Your task to perform on an android device: change timer sound Image 0: 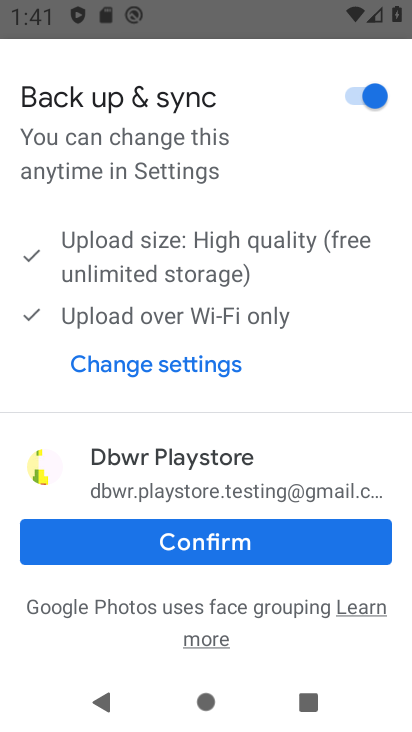
Step 0: press home button
Your task to perform on an android device: change timer sound Image 1: 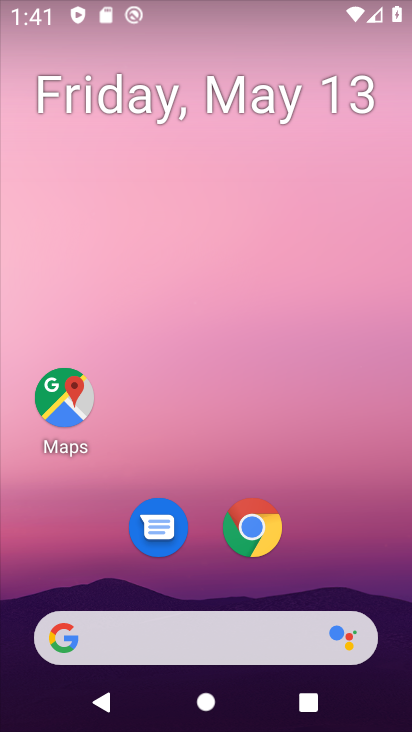
Step 1: drag from (205, 586) to (219, 33)
Your task to perform on an android device: change timer sound Image 2: 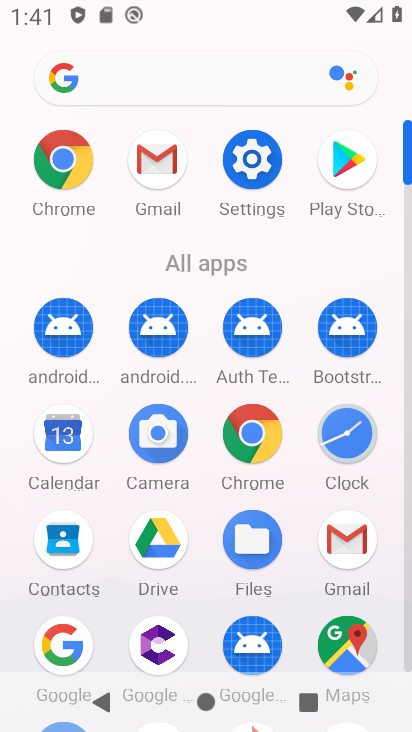
Step 2: click (362, 452)
Your task to perform on an android device: change timer sound Image 3: 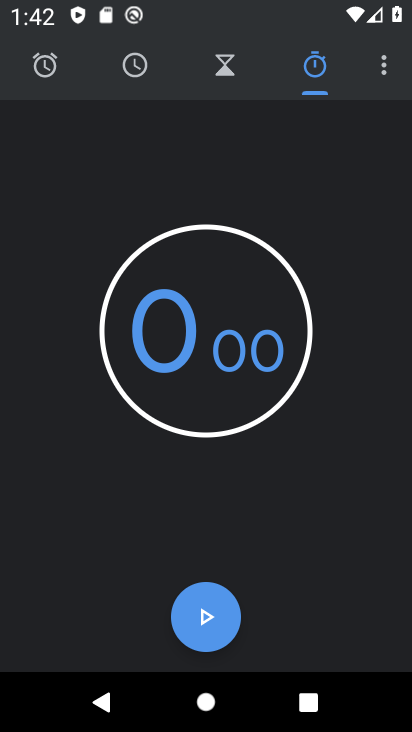
Step 3: click (400, 56)
Your task to perform on an android device: change timer sound Image 4: 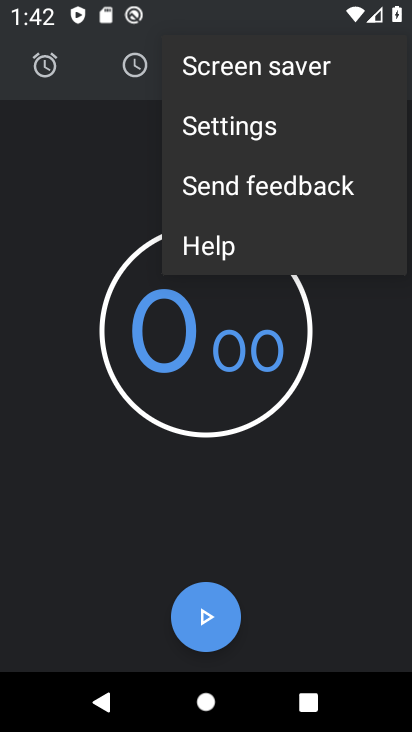
Step 4: click (241, 126)
Your task to perform on an android device: change timer sound Image 5: 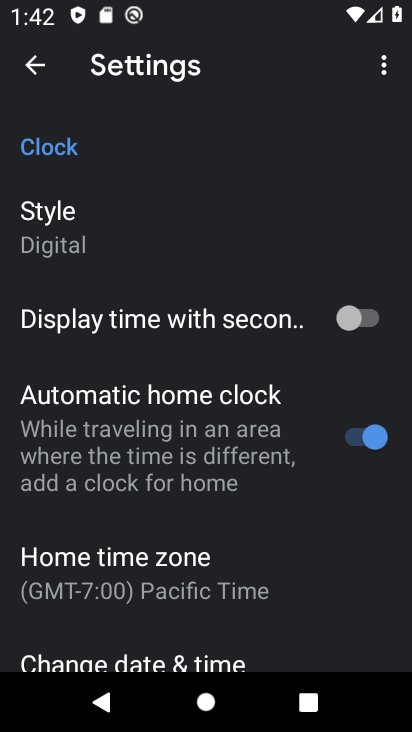
Step 5: drag from (145, 544) to (280, 0)
Your task to perform on an android device: change timer sound Image 6: 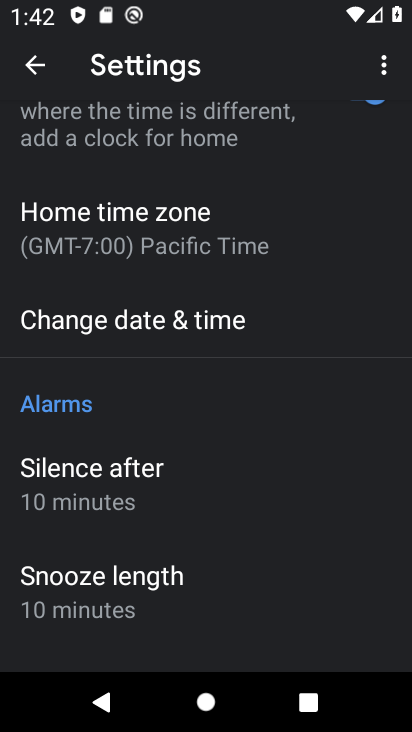
Step 6: drag from (136, 621) to (366, 20)
Your task to perform on an android device: change timer sound Image 7: 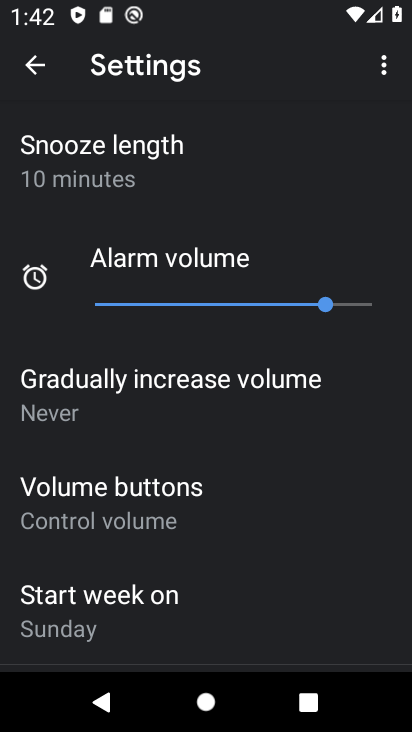
Step 7: drag from (113, 611) to (176, 158)
Your task to perform on an android device: change timer sound Image 8: 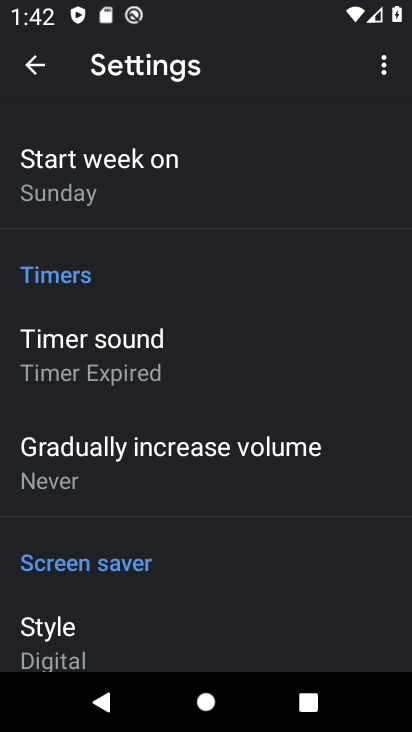
Step 8: click (139, 348)
Your task to perform on an android device: change timer sound Image 9: 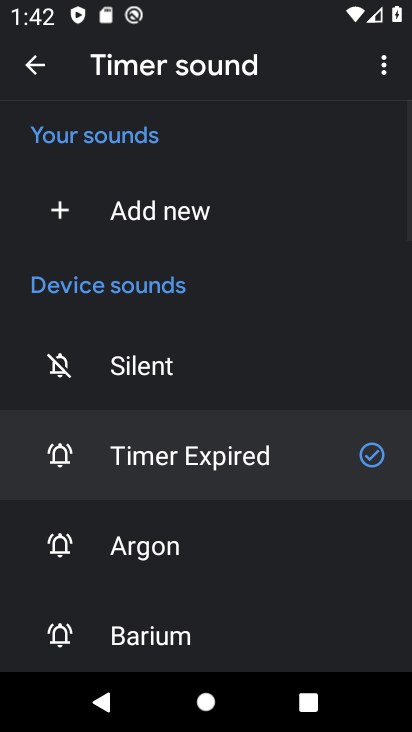
Step 9: click (157, 559)
Your task to perform on an android device: change timer sound Image 10: 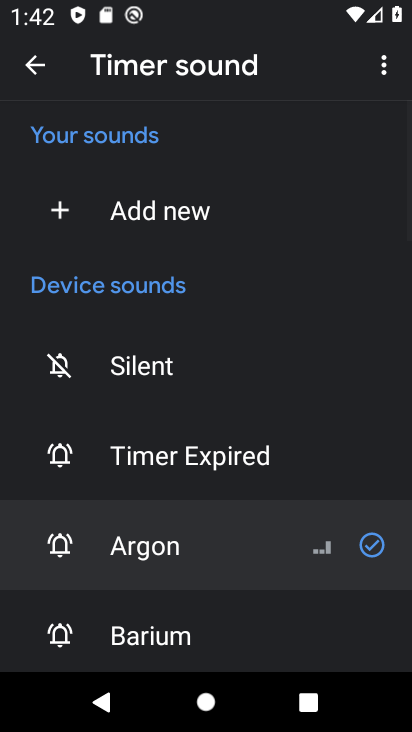
Step 10: task complete